Your task to perform on an android device: open wifi settings Image 0: 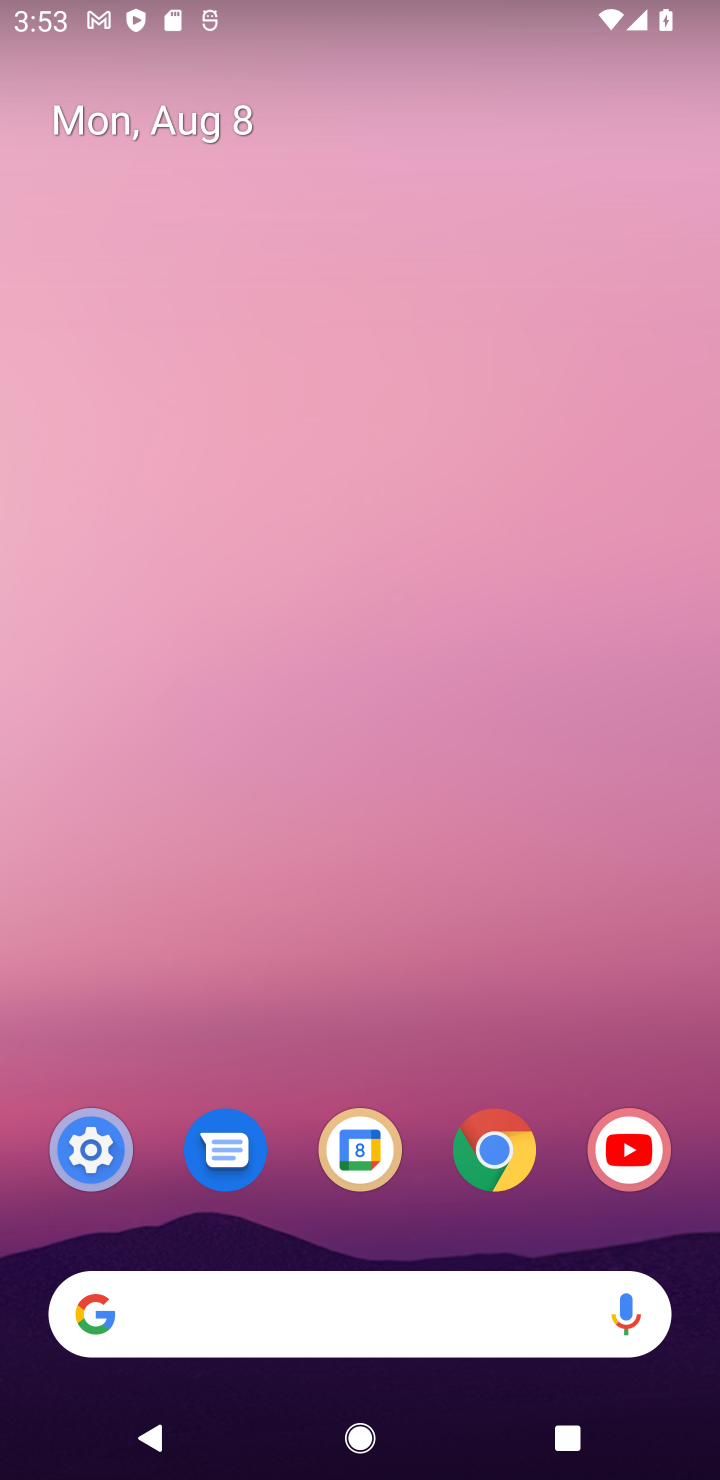
Step 0: click (90, 1151)
Your task to perform on an android device: open wifi settings Image 1: 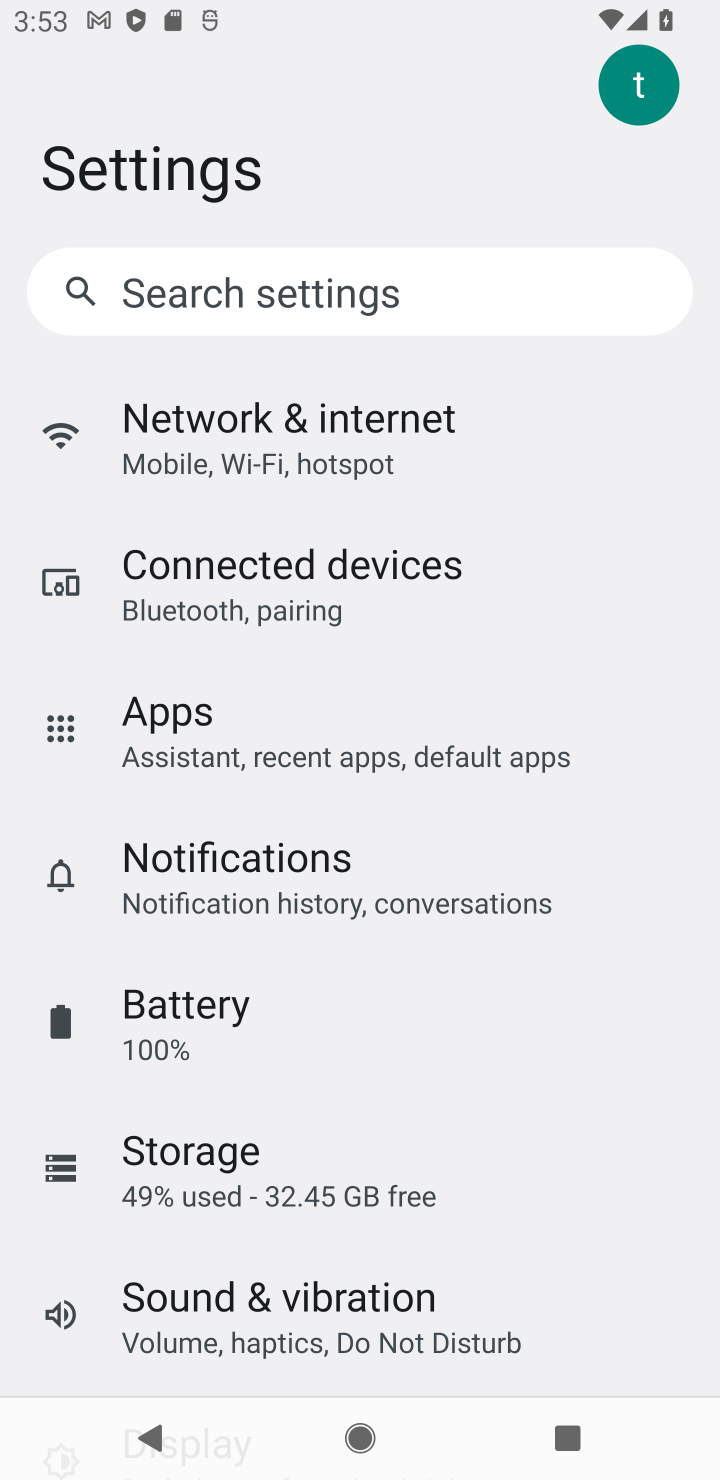
Step 1: task complete